Your task to perform on an android device: Find coffee shops on Maps Image 0: 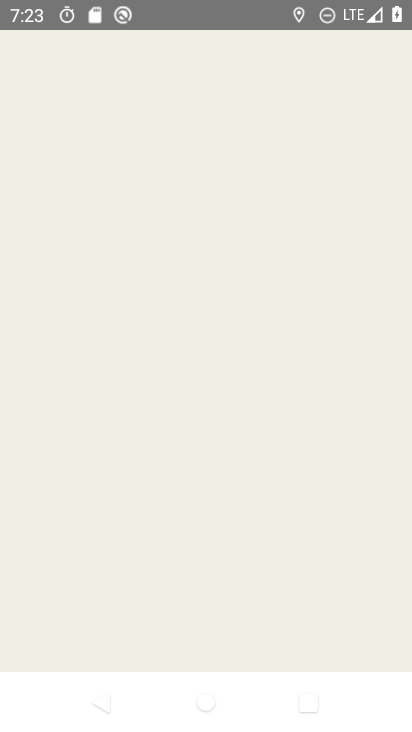
Step 0: press home button
Your task to perform on an android device: Find coffee shops on Maps Image 1: 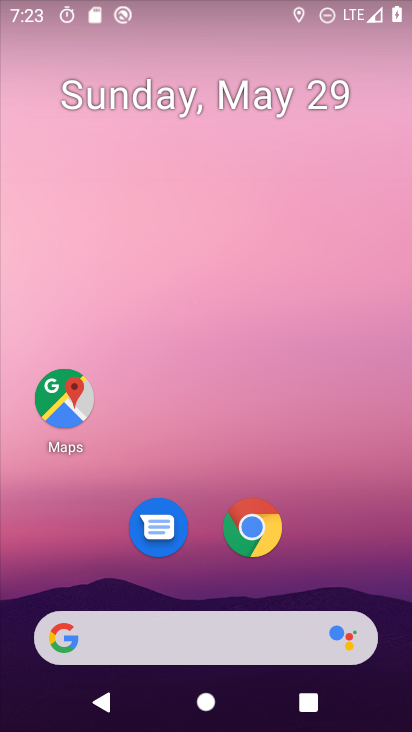
Step 1: drag from (401, 631) to (272, 60)
Your task to perform on an android device: Find coffee shops on Maps Image 2: 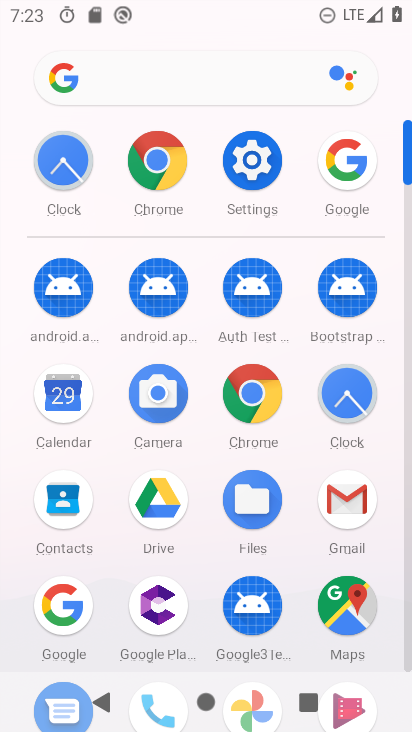
Step 2: click (353, 599)
Your task to perform on an android device: Find coffee shops on Maps Image 3: 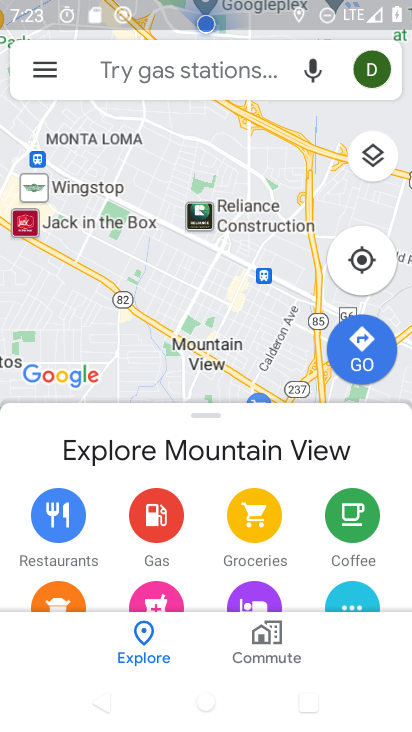
Step 3: click (97, 84)
Your task to perform on an android device: Find coffee shops on Maps Image 4: 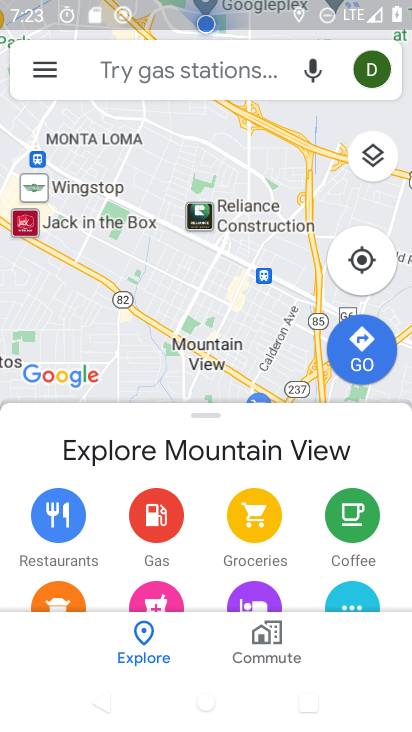
Step 4: click (160, 72)
Your task to perform on an android device: Find coffee shops on Maps Image 5: 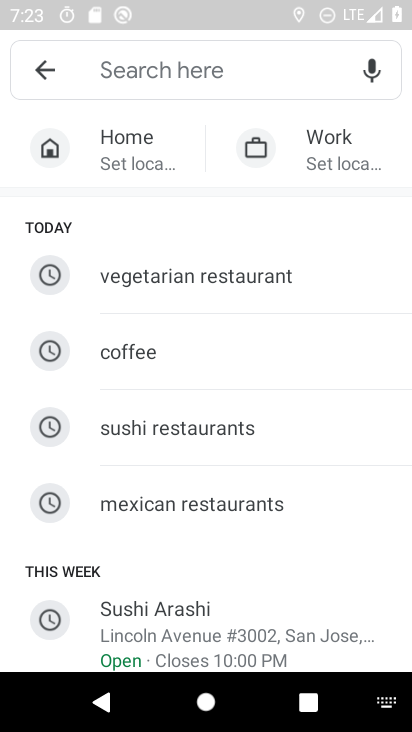
Step 5: click (167, 349)
Your task to perform on an android device: Find coffee shops on Maps Image 6: 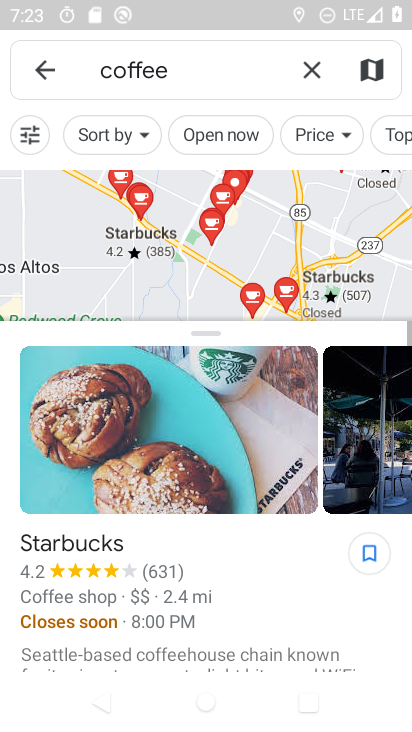
Step 6: task complete